Your task to perform on an android device: Open my contact list Image 0: 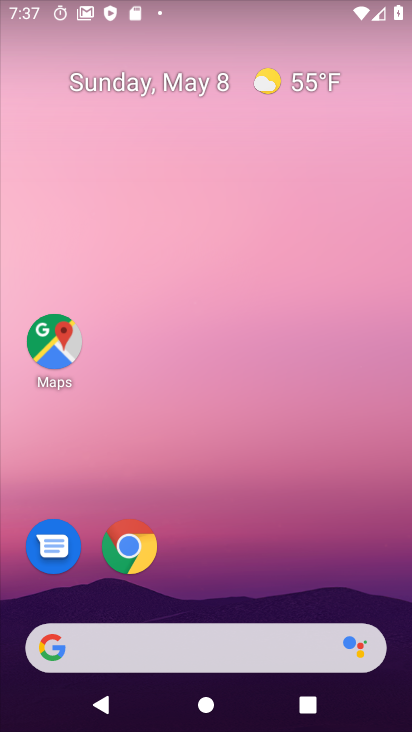
Step 0: drag from (268, 535) to (310, 25)
Your task to perform on an android device: Open my contact list Image 1: 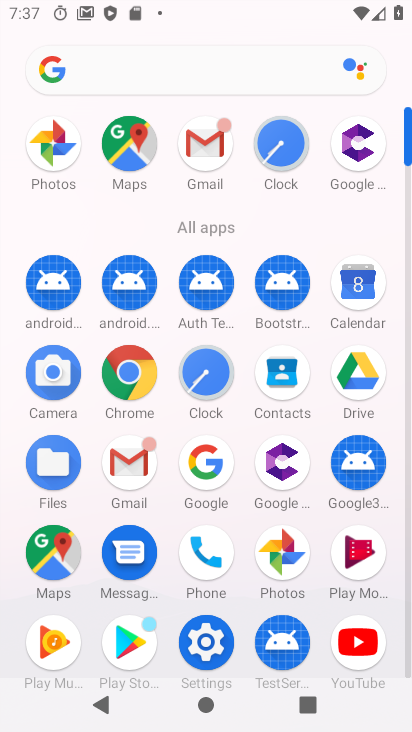
Step 1: click (286, 370)
Your task to perform on an android device: Open my contact list Image 2: 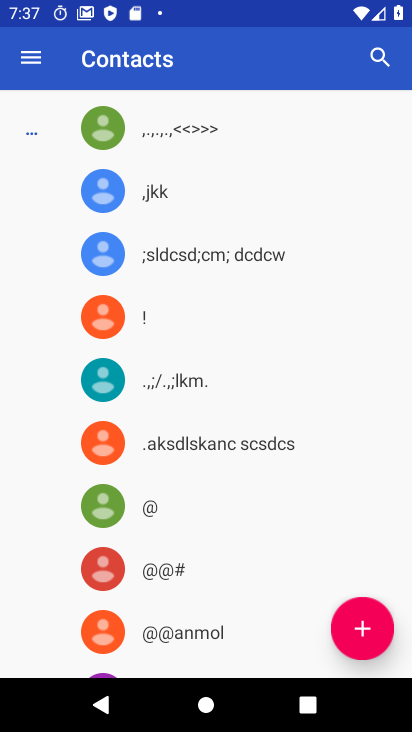
Step 2: task complete